Your task to perform on an android device: turn smart compose on in the gmail app Image 0: 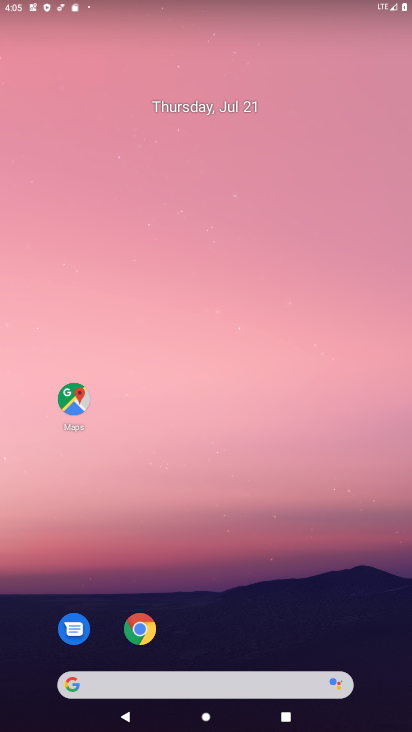
Step 0: drag from (349, 634) to (268, 70)
Your task to perform on an android device: turn smart compose on in the gmail app Image 1: 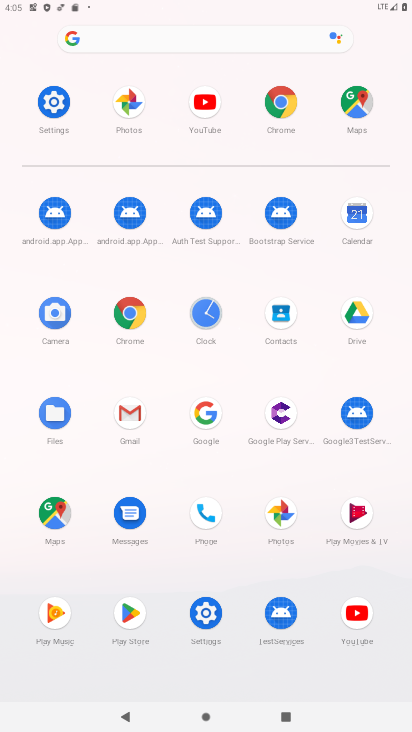
Step 1: click (132, 412)
Your task to perform on an android device: turn smart compose on in the gmail app Image 2: 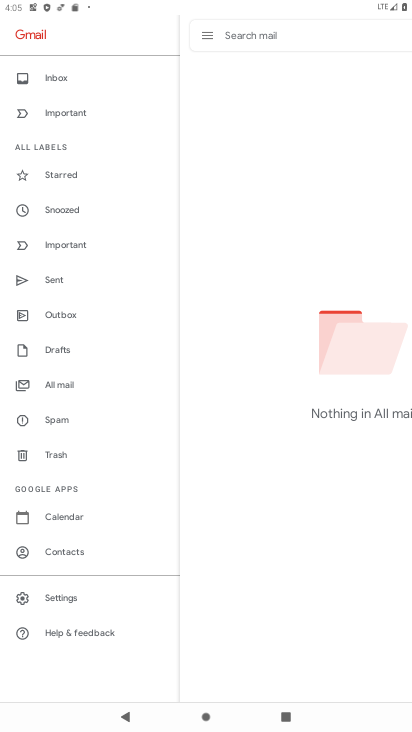
Step 2: click (77, 600)
Your task to perform on an android device: turn smart compose on in the gmail app Image 3: 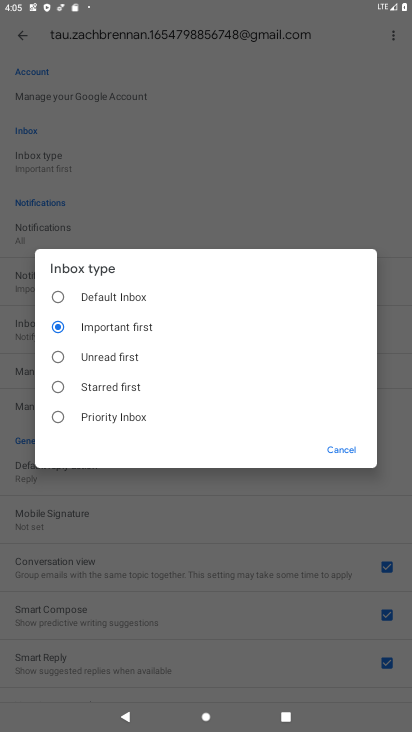
Step 3: click (350, 442)
Your task to perform on an android device: turn smart compose on in the gmail app Image 4: 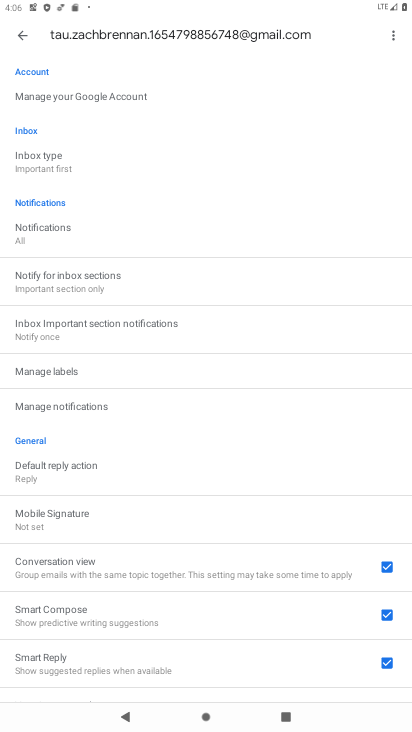
Step 4: task complete